Your task to perform on an android device: add a contact in the contacts app Image 0: 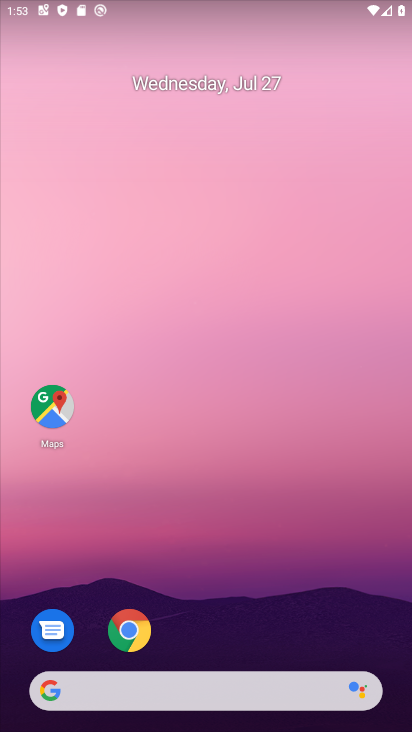
Step 0: drag from (370, 631) to (321, 128)
Your task to perform on an android device: add a contact in the contacts app Image 1: 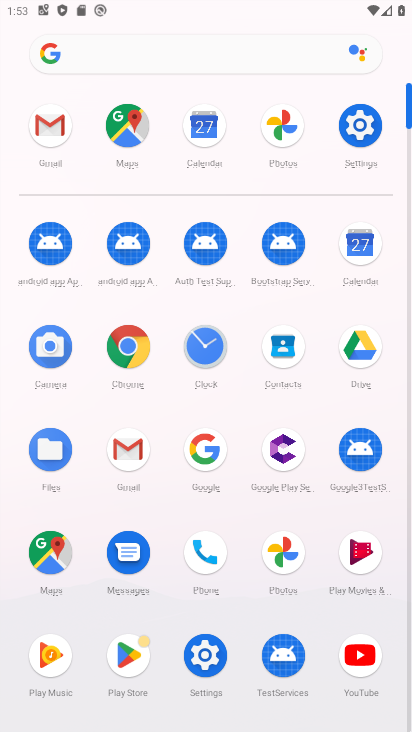
Step 1: click (282, 345)
Your task to perform on an android device: add a contact in the contacts app Image 2: 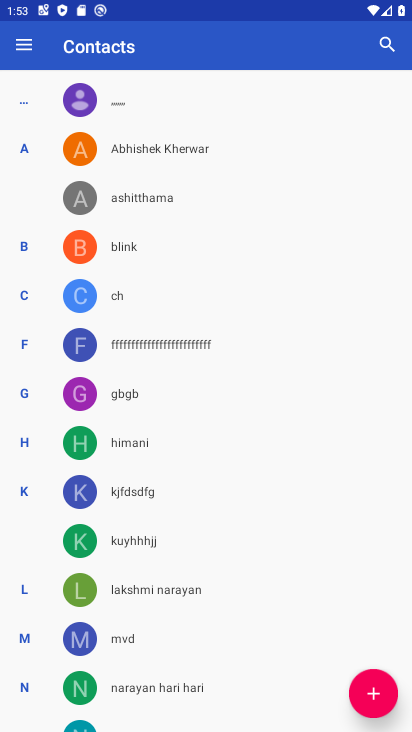
Step 2: click (373, 693)
Your task to perform on an android device: add a contact in the contacts app Image 3: 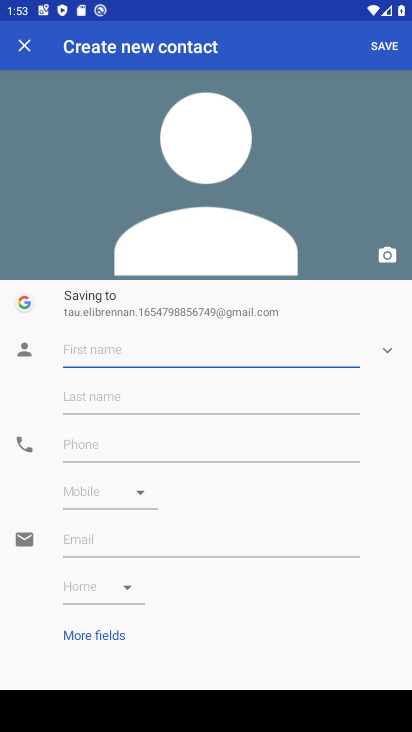
Step 3: type "iuyuoioyj"
Your task to perform on an android device: add a contact in the contacts app Image 4: 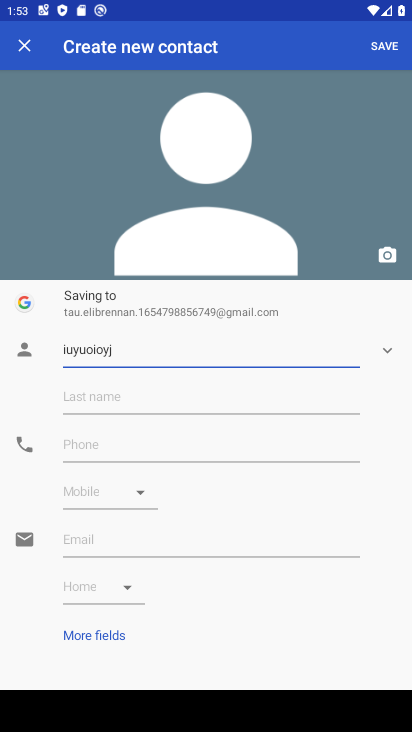
Step 4: click (84, 432)
Your task to perform on an android device: add a contact in the contacts app Image 5: 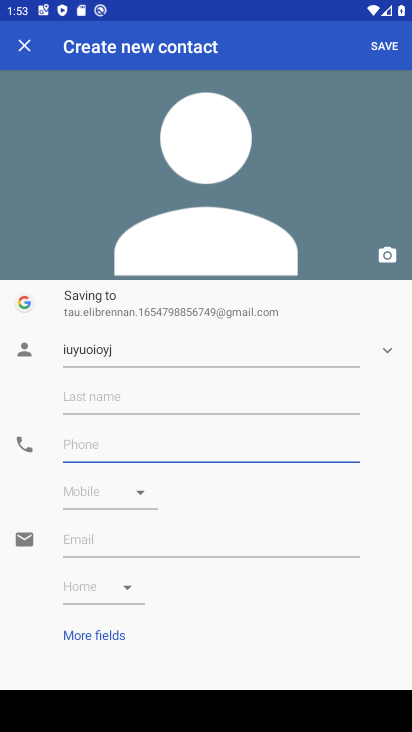
Step 5: type "09756433567"
Your task to perform on an android device: add a contact in the contacts app Image 6: 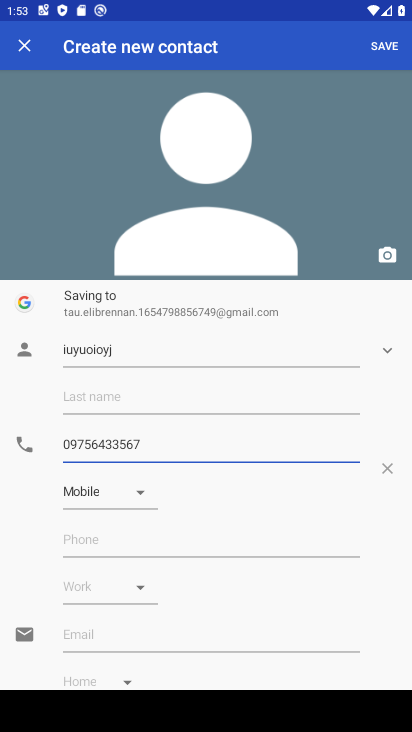
Step 6: click (382, 51)
Your task to perform on an android device: add a contact in the contacts app Image 7: 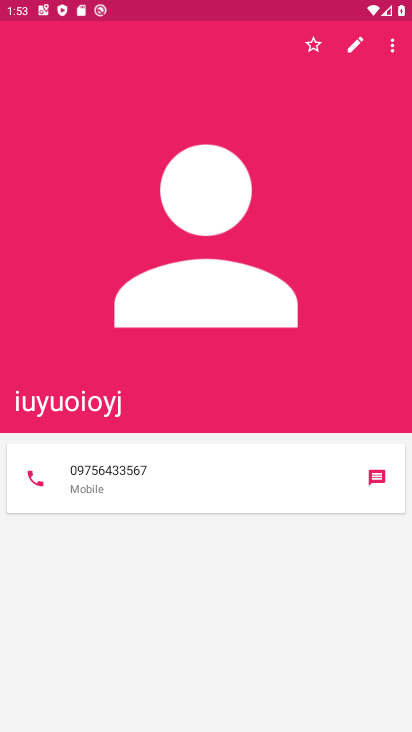
Step 7: task complete